Your task to perform on an android device: Open calendar and show me the fourth week of next month Image 0: 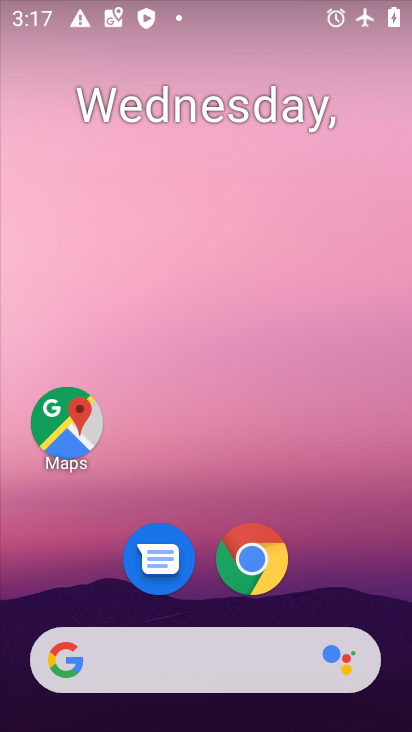
Step 0: drag from (212, 601) to (198, 24)
Your task to perform on an android device: Open calendar and show me the fourth week of next month Image 1: 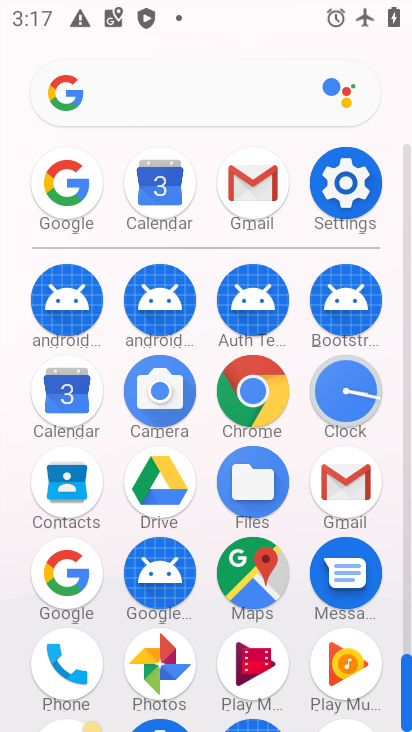
Step 1: click (69, 399)
Your task to perform on an android device: Open calendar and show me the fourth week of next month Image 2: 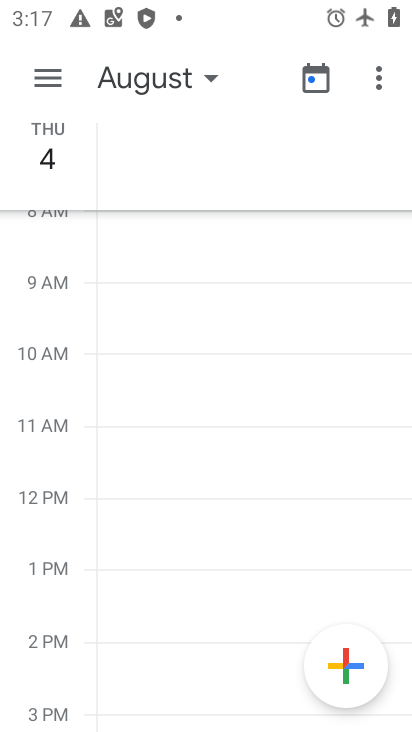
Step 2: click (199, 74)
Your task to perform on an android device: Open calendar and show me the fourth week of next month Image 3: 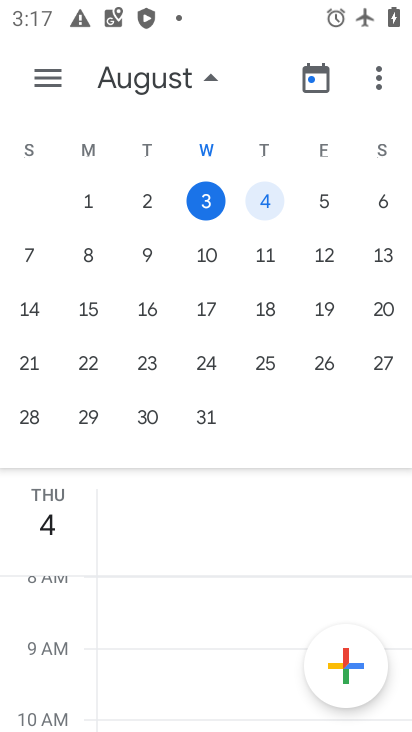
Step 3: drag from (360, 278) to (80, 275)
Your task to perform on an android device: Open calendar and show me the fourth week of next month Image 4: 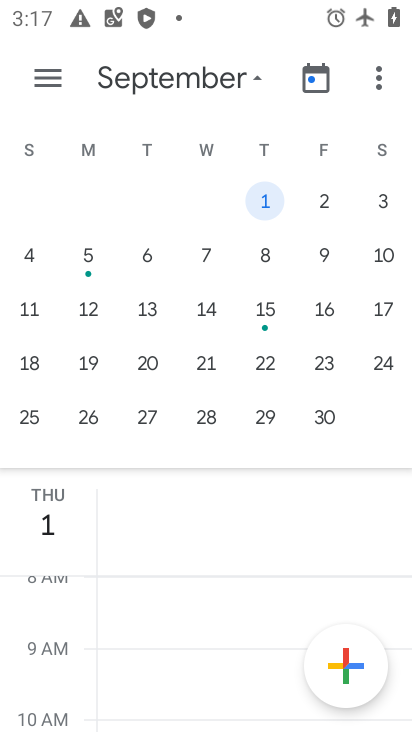
Step 4: click (86, 420)
Your task to perform on an android device: Open calendar and show me the fourth week of next month Image 5: 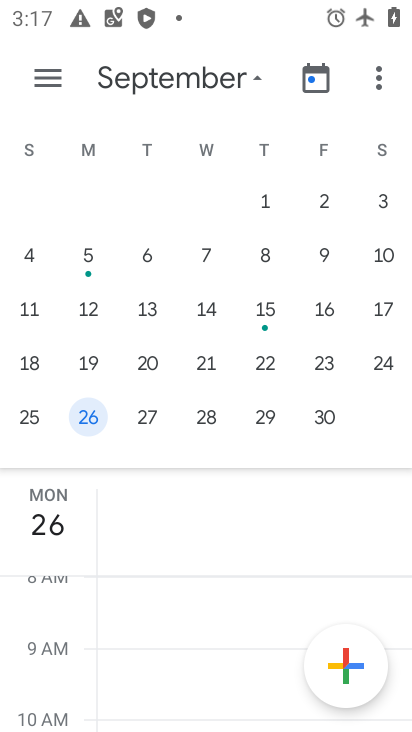
Step 5: click (43, 71)
Your task to perform on an android device: Open calendar and show me the fourth week of next month Image 6: 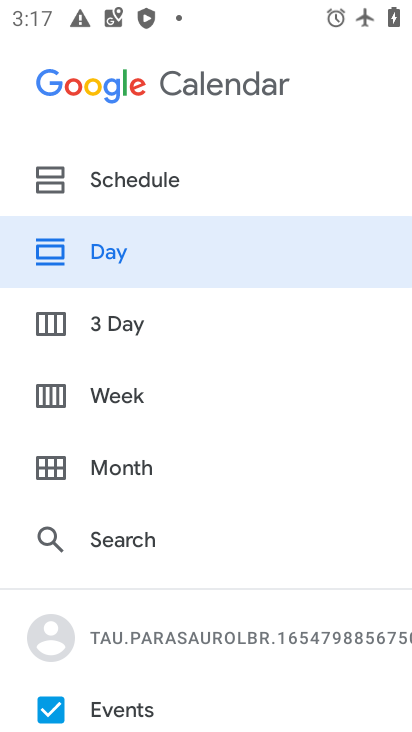
Step 6: click (117, 395)
Your task to perform on an android device: Open calendar and show me the fourth week of next month Image 7: 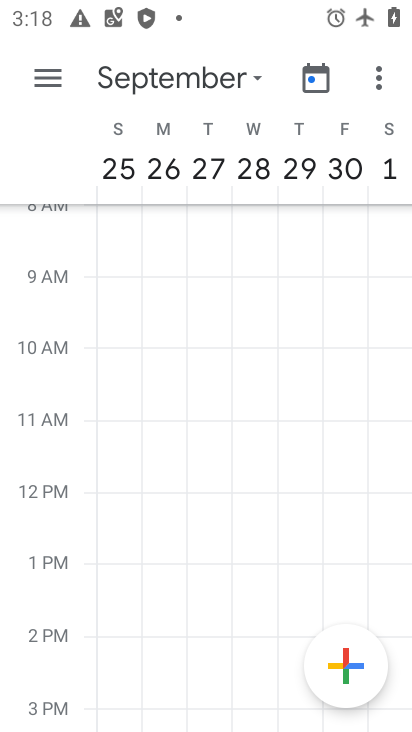
Step 7: task complete